Your task to perform on an android device: turn on the 24-hour format for clock Image 0: 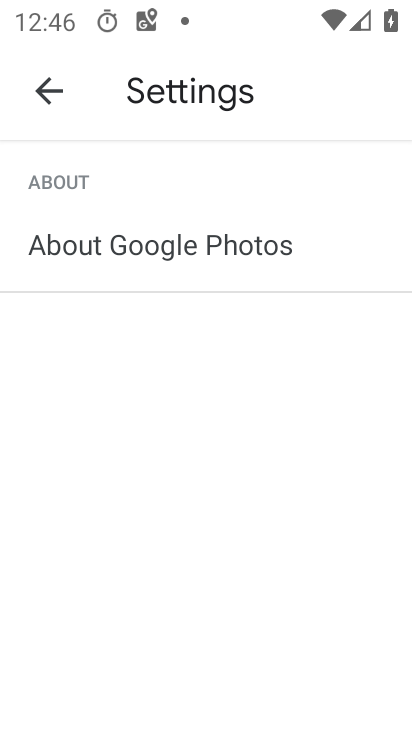
Step 0: press home button
Your task to perform on an android device: turn on the 24-hour format for clock Image 1: 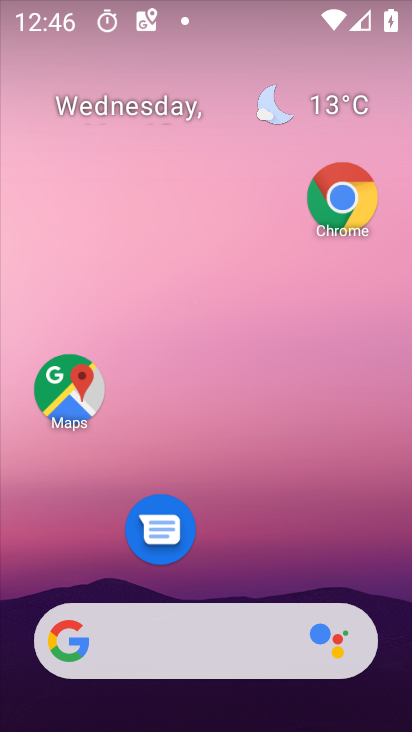
Step 1: drag from (220, 585) to (236, 68)
Your task to perform on an android device: turn on the 24-hour format for clock Image 2: 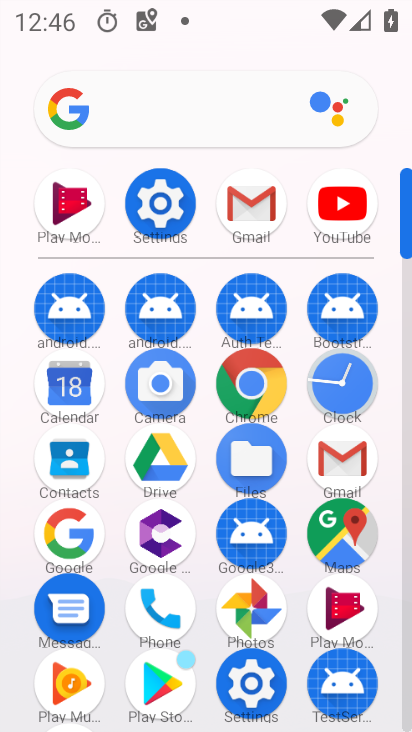
Step 2: click (167, 184)
Your task to perform on an android device: turn on the 24-hour format for clock Image 3: 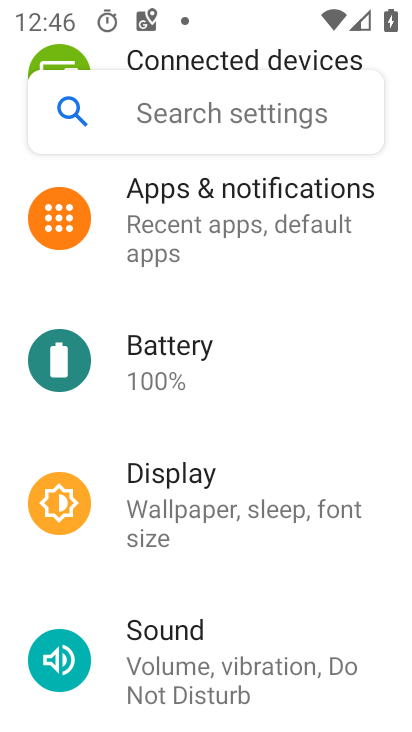
Step 3: press home button
Your task to perform on an android device: turn on the 24-hour format for clock Image 4: 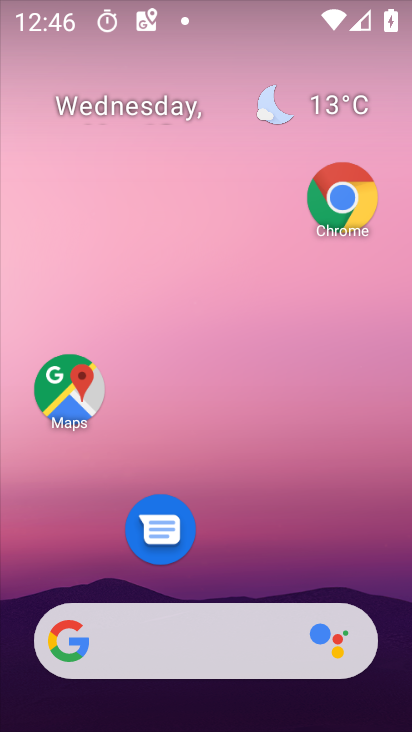
Step 4: drag from (254, 559) to (129, 10)
Your task to perform on an android device: turn on the 24-hour format for clock Image 5: 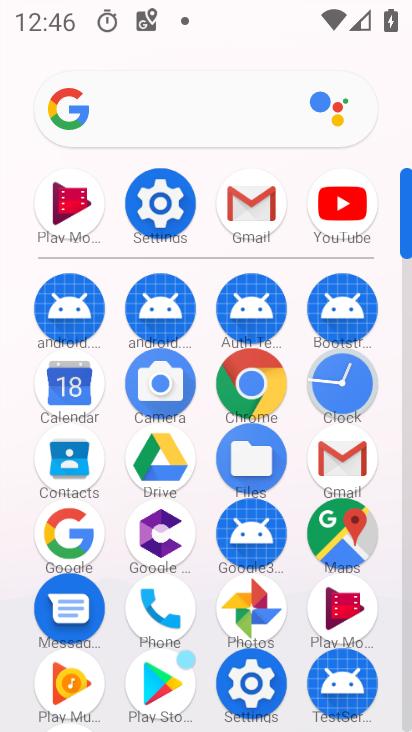
Step 5: click (361, 372)
Your task to perform on an android device: turn on the 24-hour format for clock Image 6: 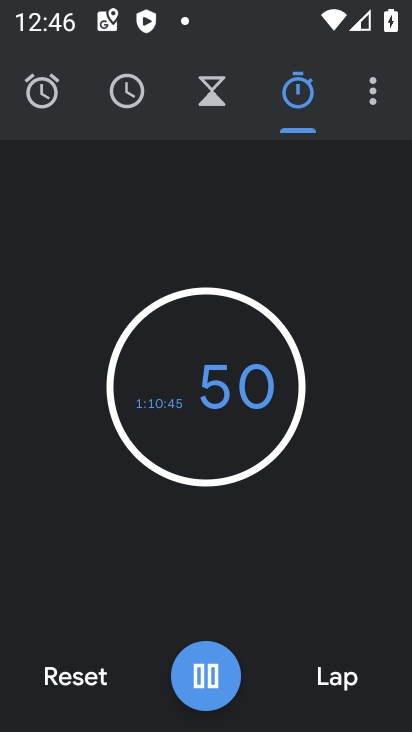
Step 6: click (212, 697)
Your task to perform on an android device: turn on the 24-hour format for clock Image 7: 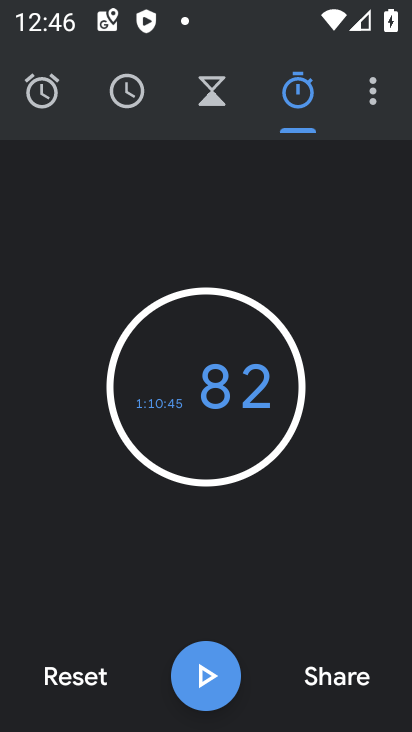
Step 7: click (386, 97)
Your task to perform on an android device: turn on the 24-hour format for clock Image 8: 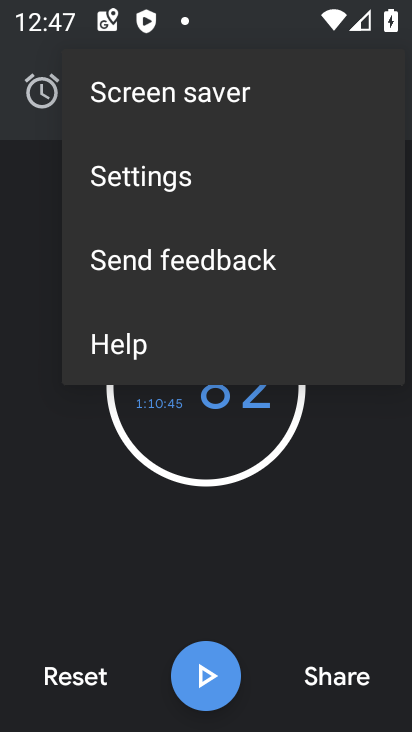
Step 8: click (184, 208)
Your task to perform on an android device: turn on the 24-hour format for clock Image 9: 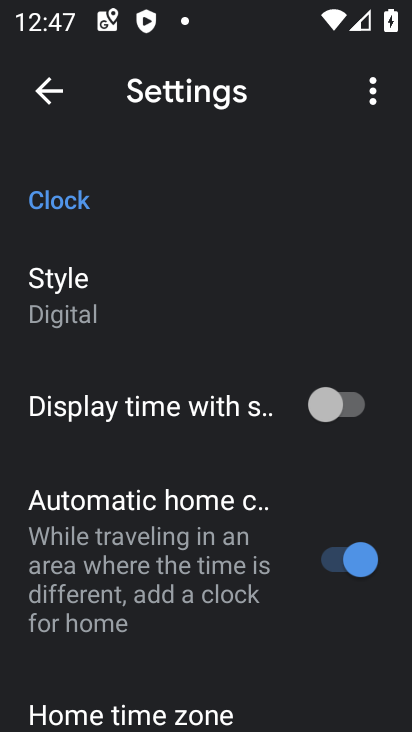
Step 9: drag from (118, 634) to (164, 160)
Your task to perform on an android device: turn on the 24-hour format for clock Image 10: 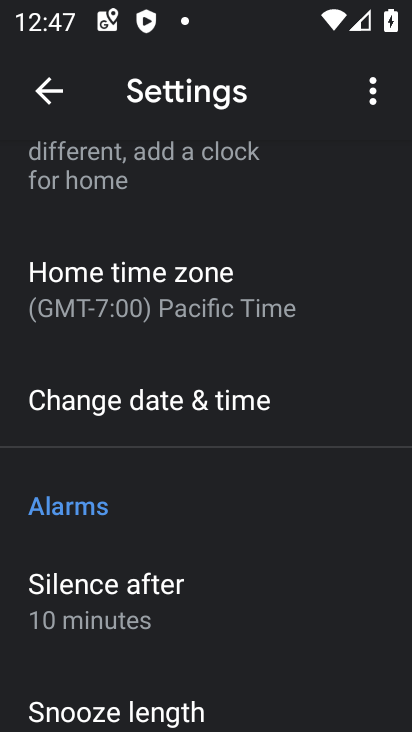
Step 10: click (159, 417)
Your task to perform on an android device: turn on the 24-hour format for clock Image 11: 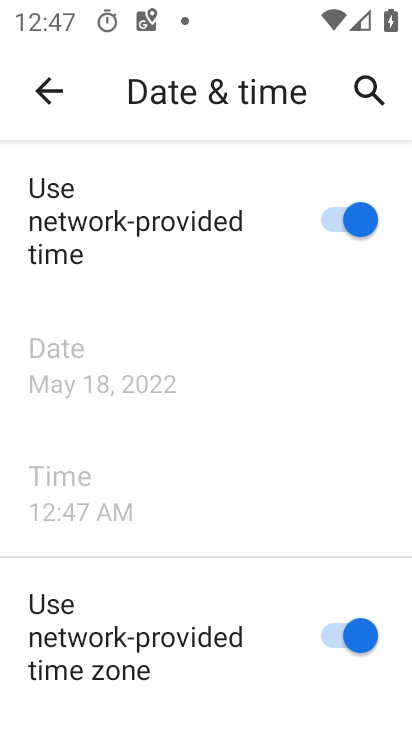
Step 11: drag from (142, 666) to (245, 135)
Your task to perform on an android device: turn on the 24-hour format for clock Image 12: 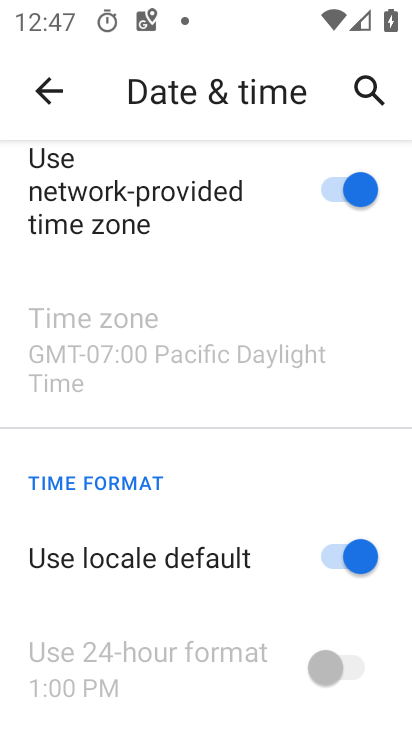
Step 12: click (348, 558)
Your task to perform on an android device: turn on the 24-hour format for clock Image 13: 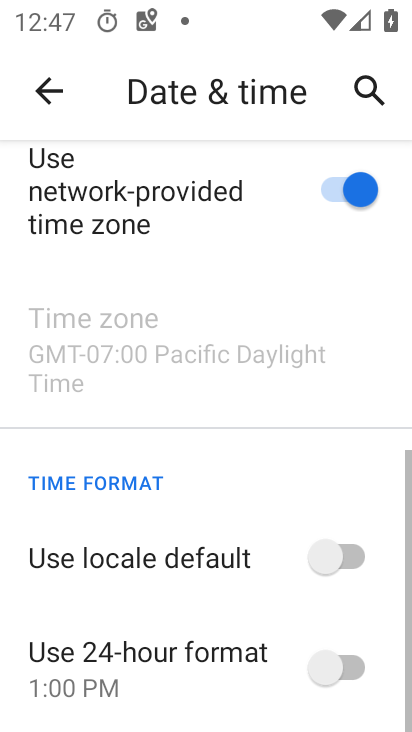
Step 13: click (343, 681)
Your task to perform on an android device: turn on the 24-hour format for clock Image 14: 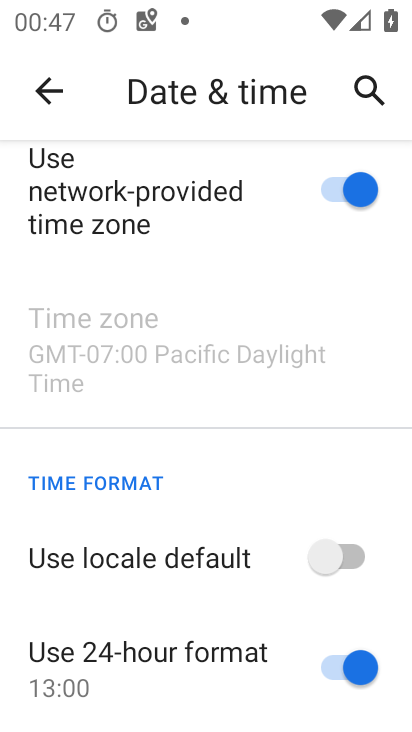
Step 14: task complete